Your task to perform on an android device: Clear the cart on target. Add jbl charge 4 to the cart on target, then select checkout. Image 0: 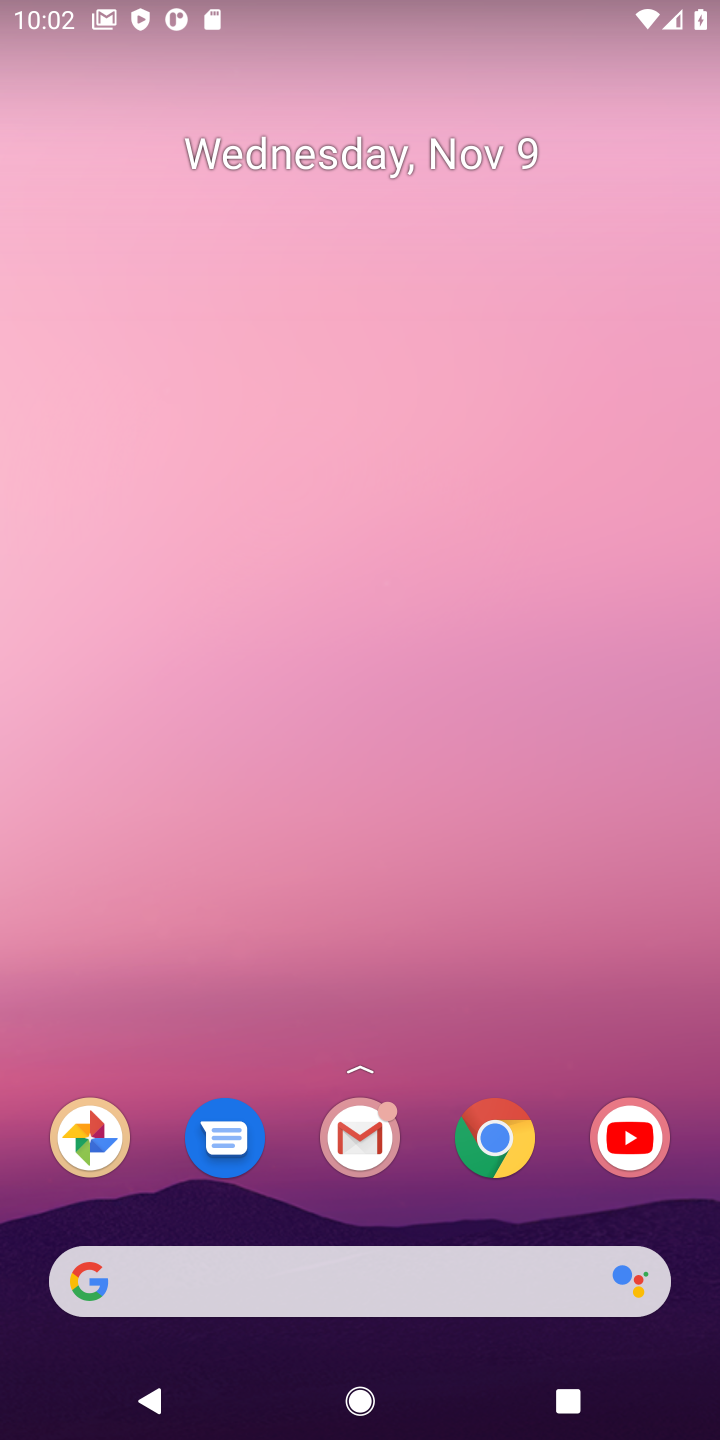
Step 0: drag from (419, 1237) to (360, 206)
Your task to perform on an android device: Clear the cart on target. Add jbl charge 4 to the cart on target, then select checkout. Image 1: 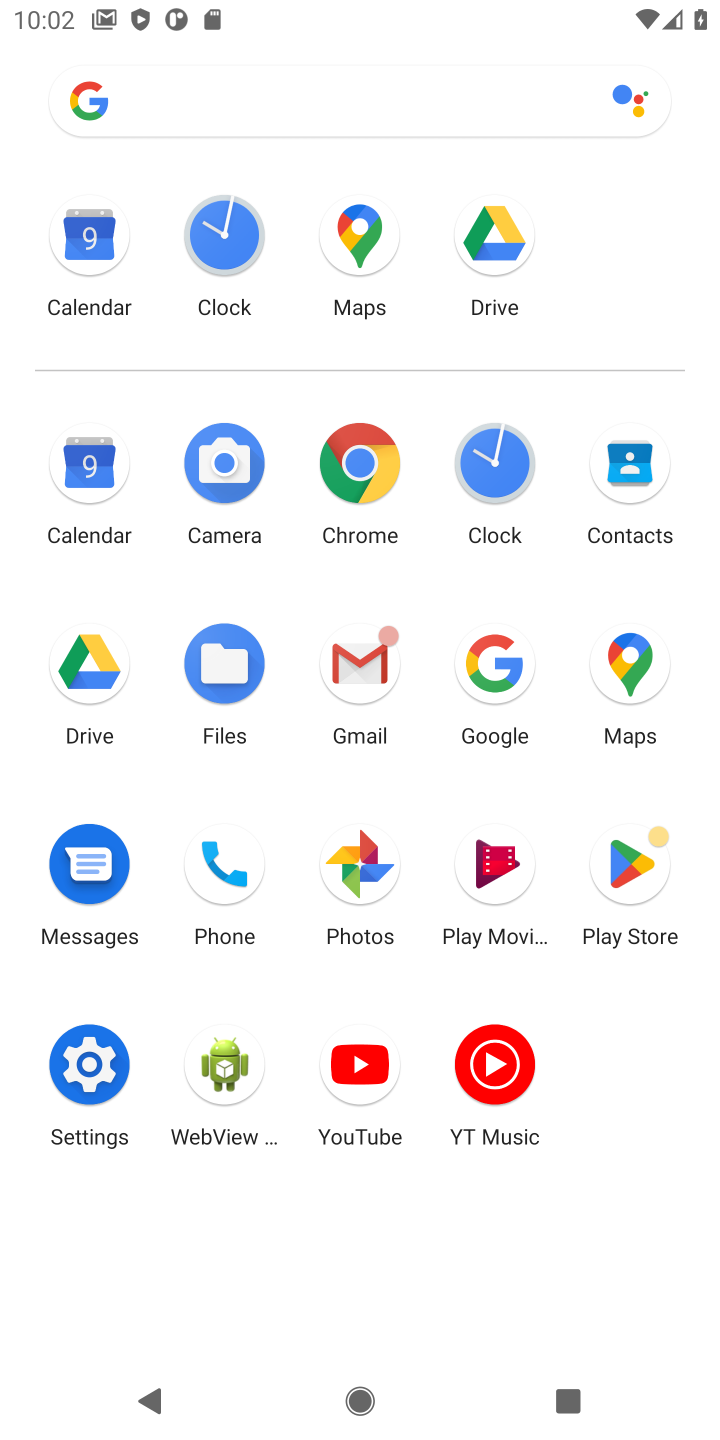
Step 1: click (343, 467)
Your task to perform on an android device: Clear the cart on target. Add jbl charge 4 to the cart on target, then select checkout. Image 2: 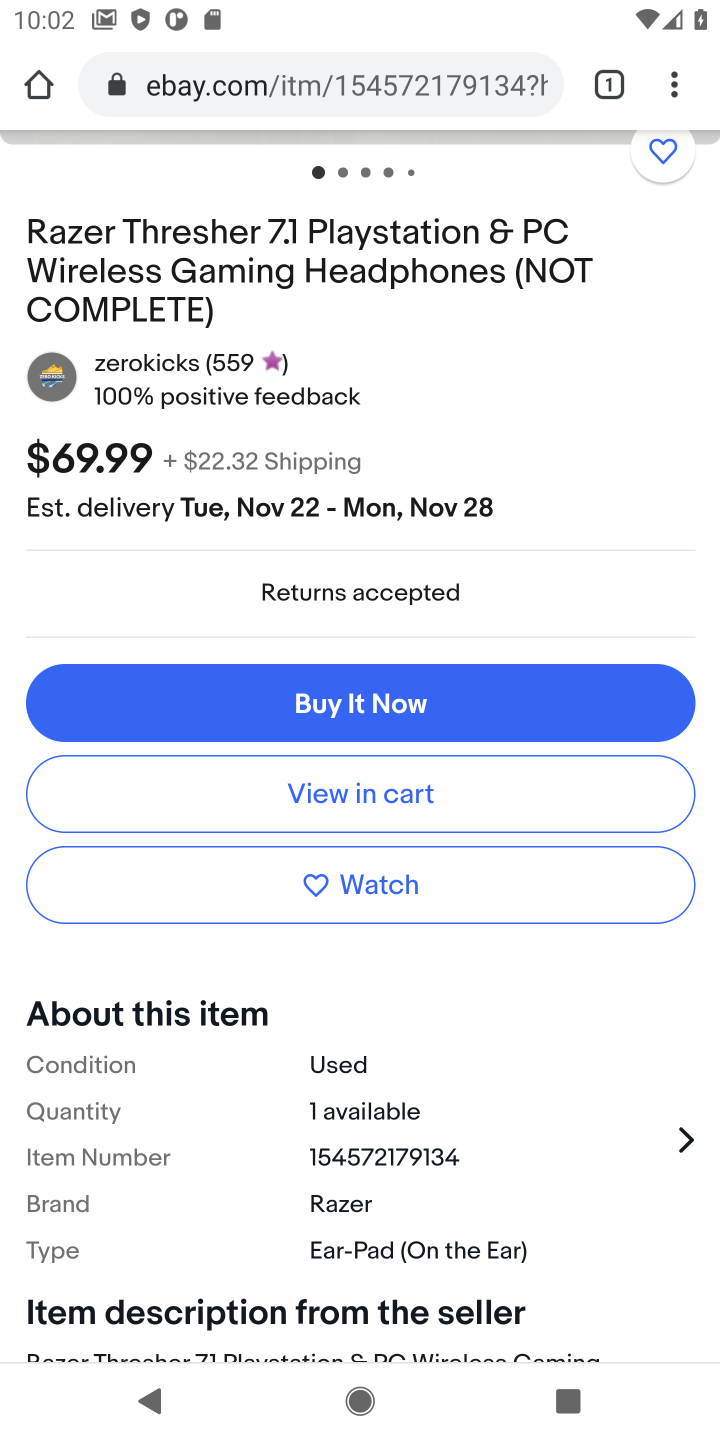
Step 2: click (370, 100)
Your task to perform on an android device: Clear the cart on target. Add jbl charge 4 to the cart on target, then select checkout. Image 3: 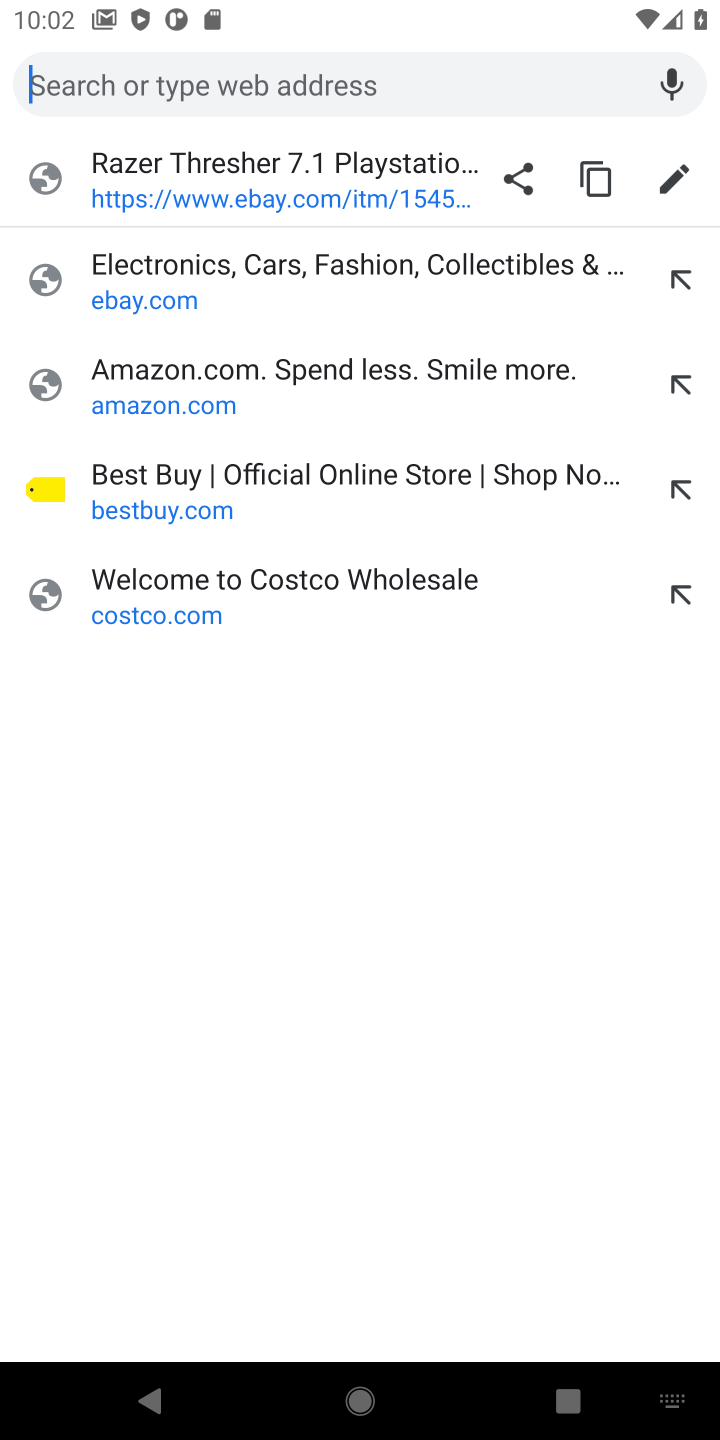
Step 3: type "target.com"
Your task to perform on an android device: Clear the cart on target. Add jbl charge 4 to the cart on target, then select checkout. Image 4: 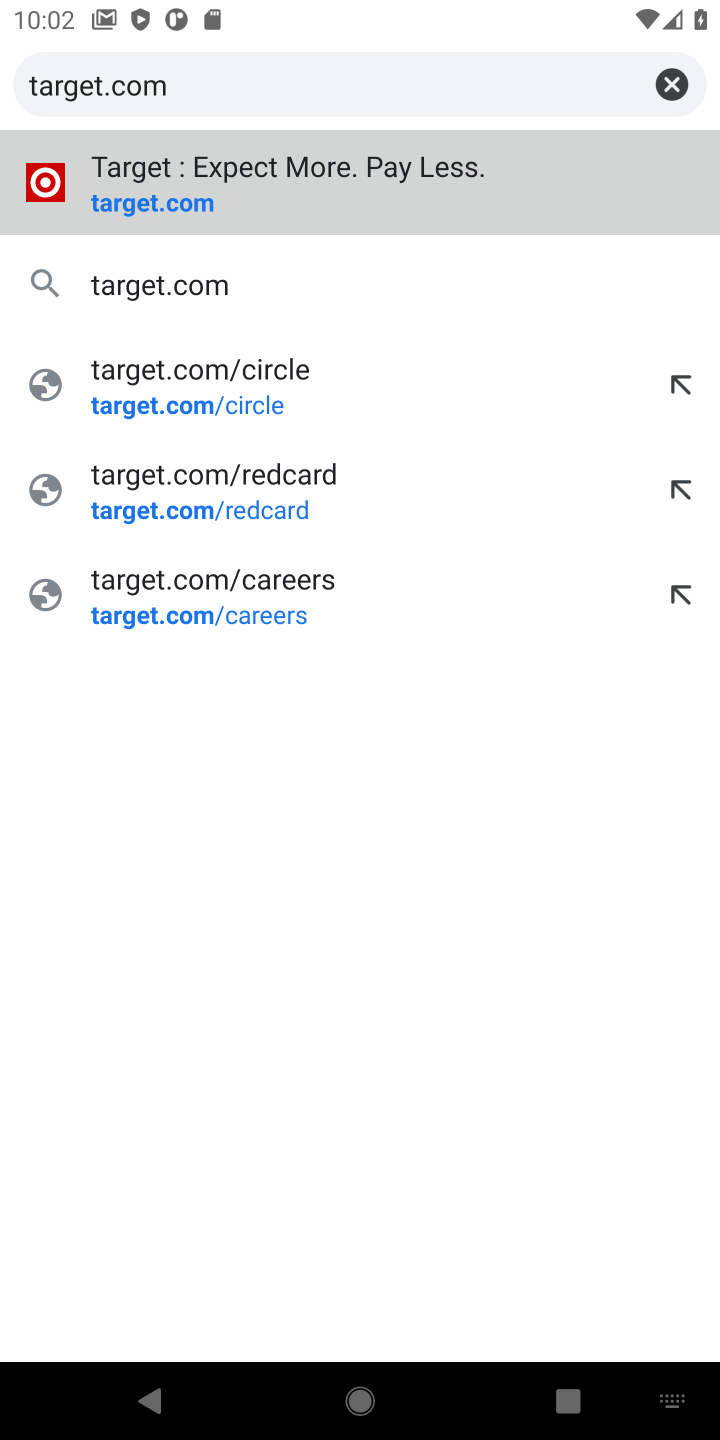
Step 4: press enter
Your task to perform on an android device: Clear the cart on target. Add jbl charge 4 to the cart on target, then select checkout. Image 5: 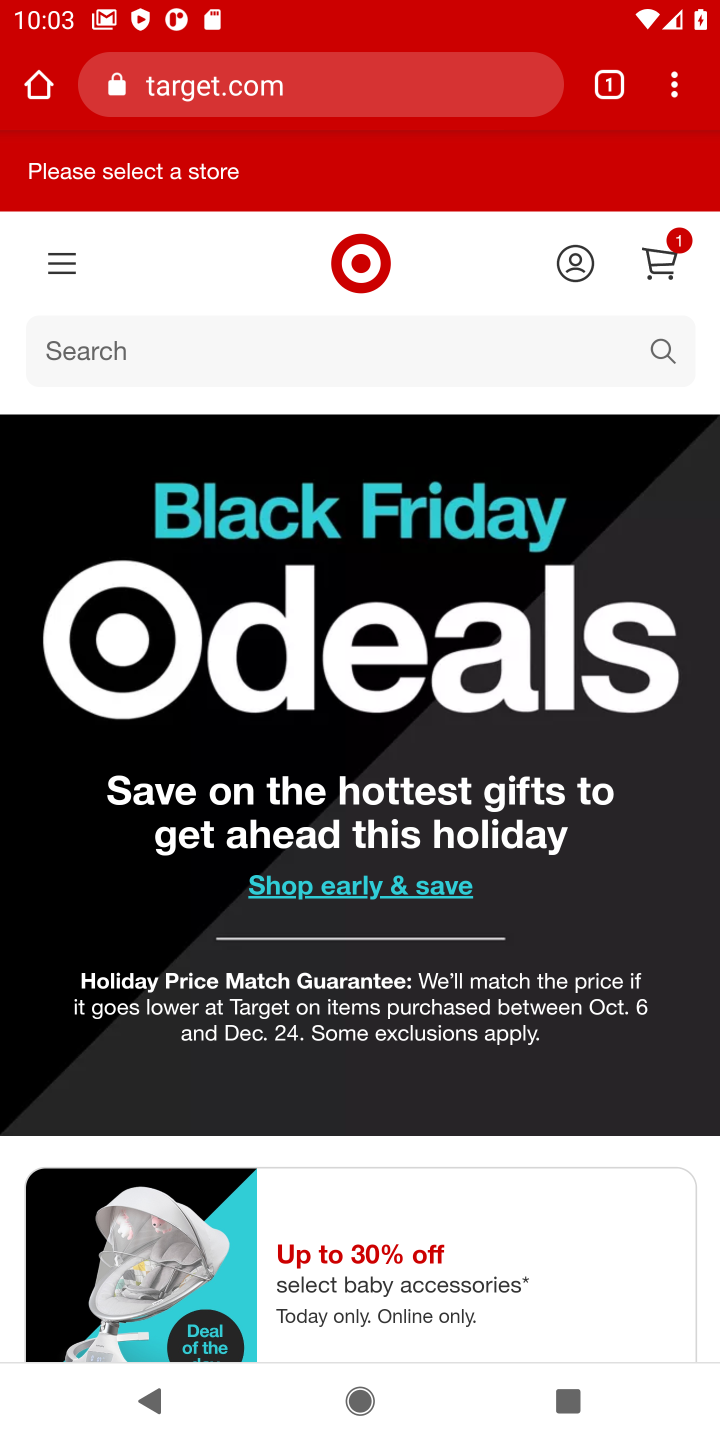
Step 5: click (652, 263)
Your task to perform on an android device: Clear the cart on target. Add jbl charge 4 to the cart on target, then select checkout. Image 6: 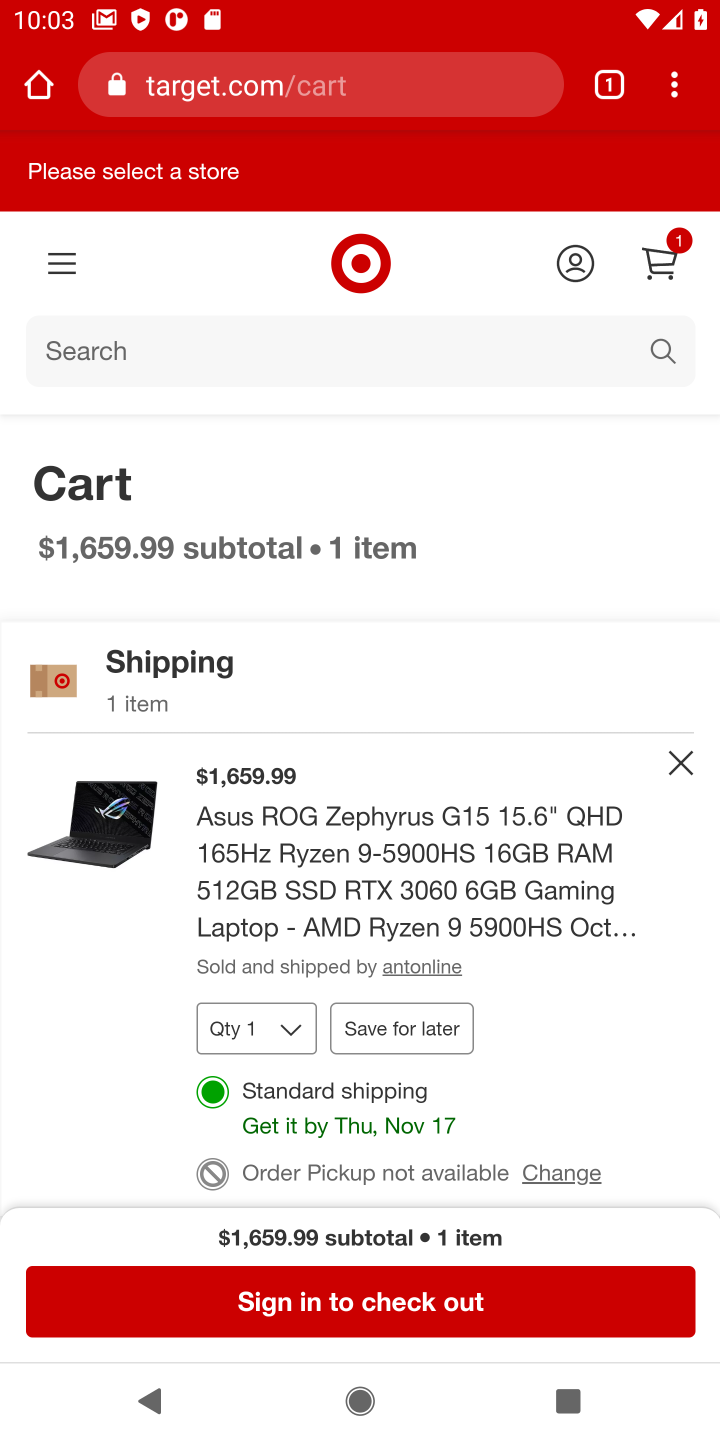
Step 6: click (378, 361)
Your task to perform on an android device: Clear the cart on target. Add jbl charge 4 to the cart on target, then select checkout. Image 7: 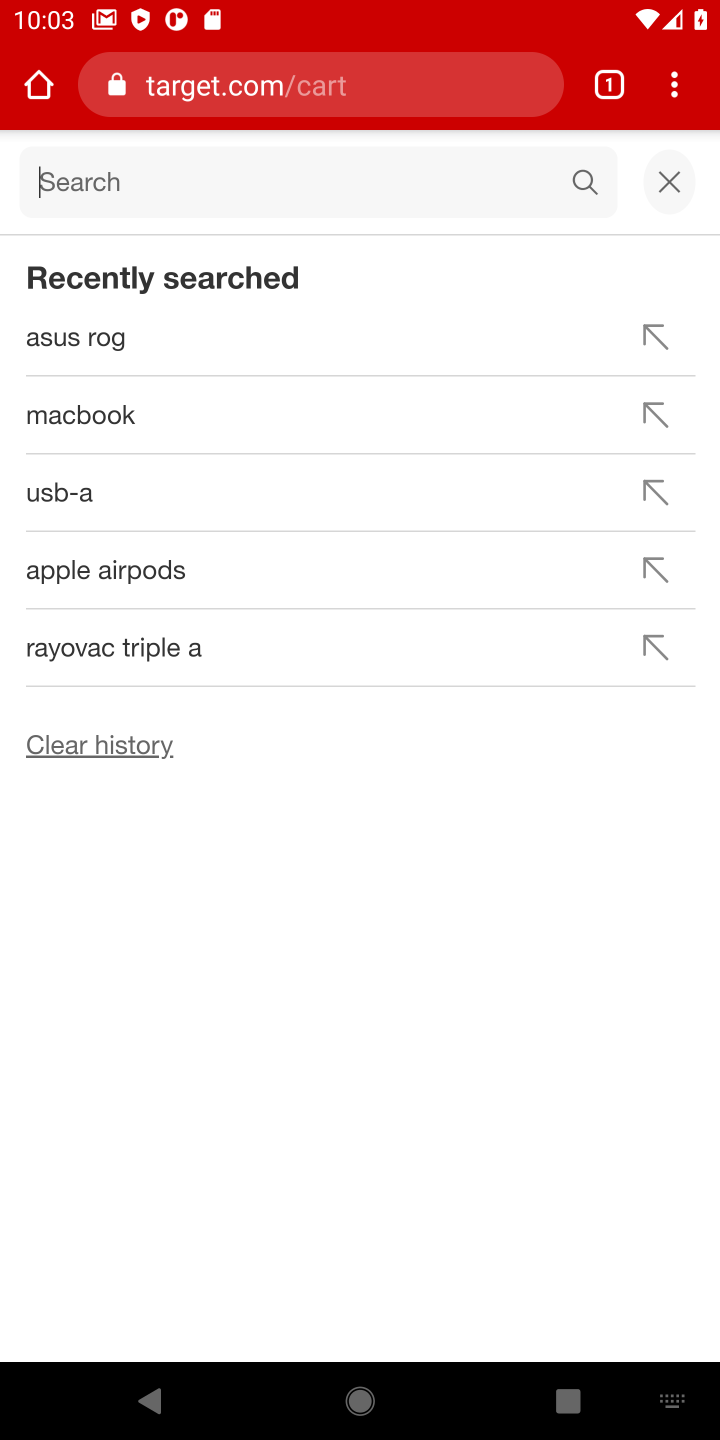
Step 7: type ""
Your task to perform on an android device: Clear the cart on target. Add jbl charge 4 to the cart on target, then select checkout. Image 8: 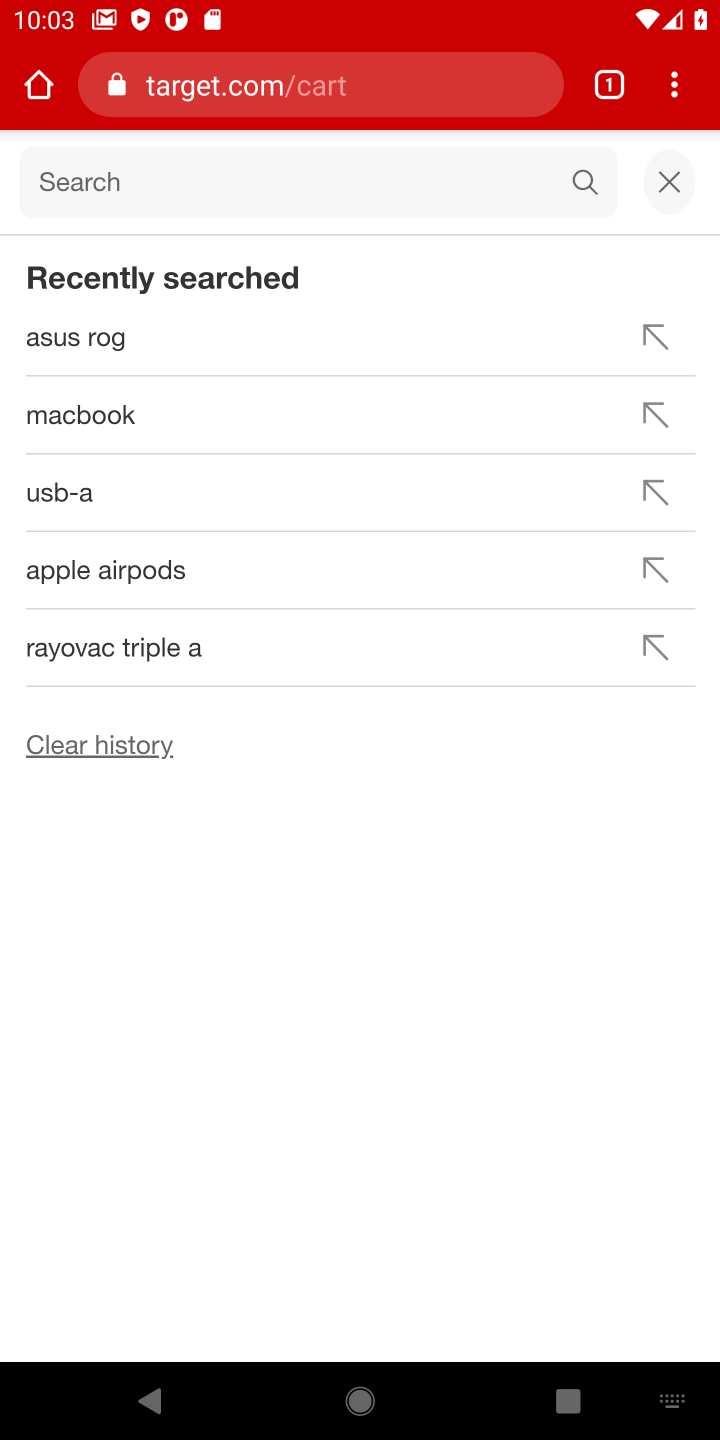
Step 8: type "jbl charege 4"
Your task to perform on an android device: Clear the cart on target. Add jbl charge 4 to the cart on target, then select checkout. Image 9: 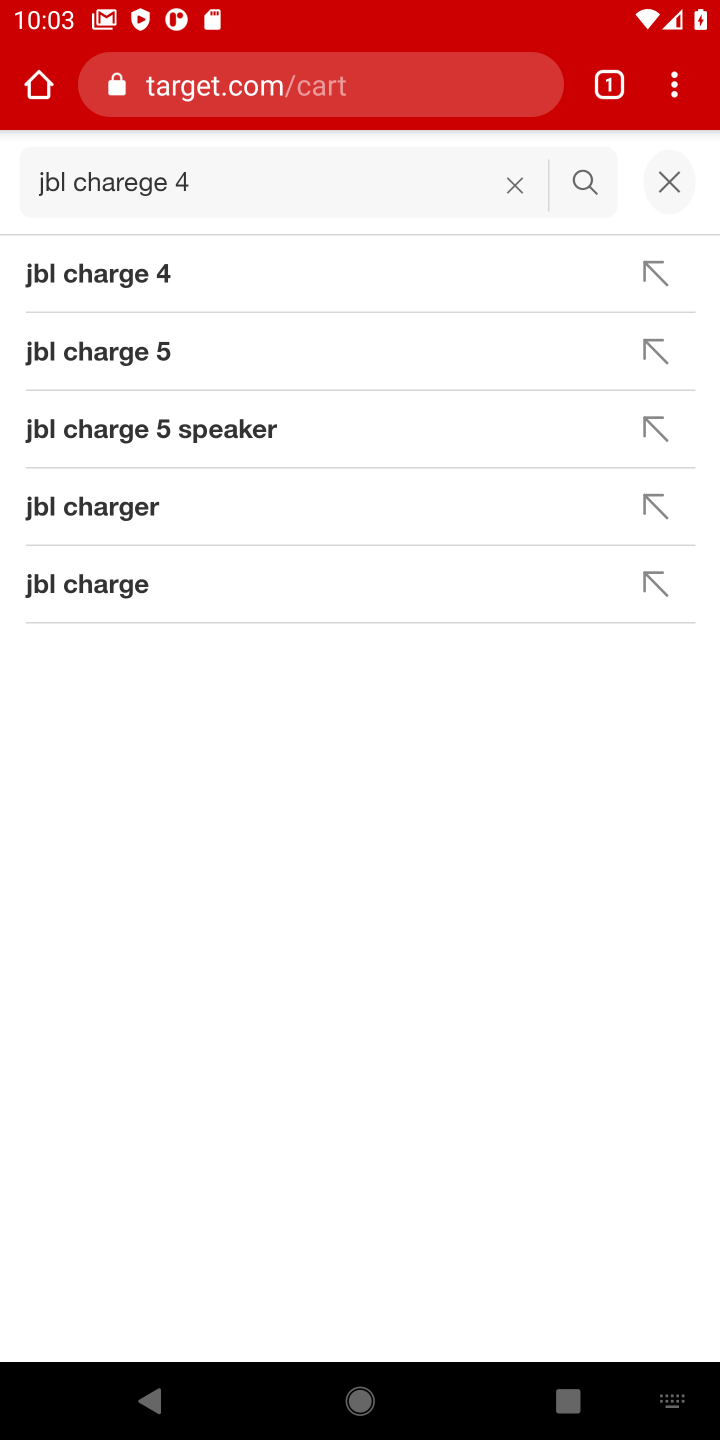
Step 9: press enter
Your task to perform on an android device: Clear the cart on target. Add jbl charge 4 to the cart on target, then select checkout. Image 10: 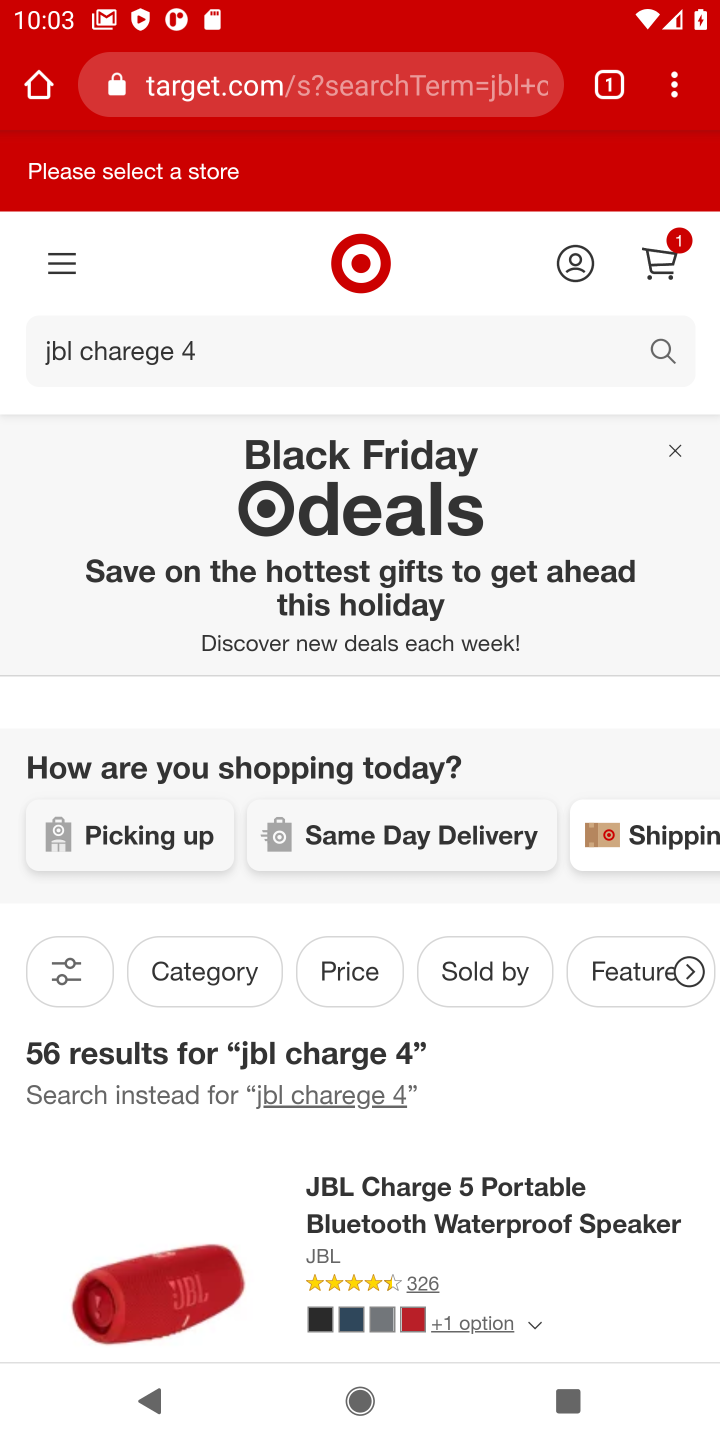
Step 10: task complete